Your task to perform on an android device: turn on bluetooth scan Image 0: 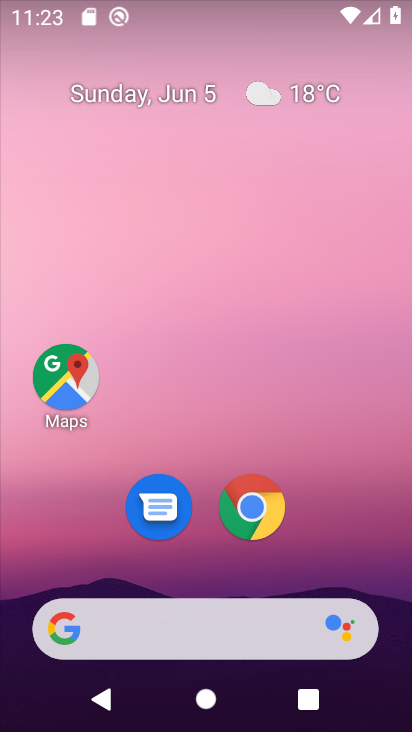
Step 0: drag from (224, 725) to (226, 198)
Your task to perform on an android device: turn on bluetooth scan Image 1: 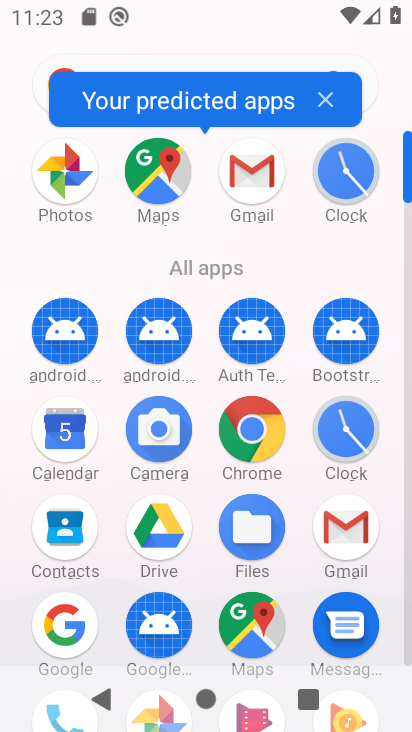
Step 1: drag from (207, 609) to (211, 153)
Your task to perform on an android device: turn on bluetooth scan Image 2: 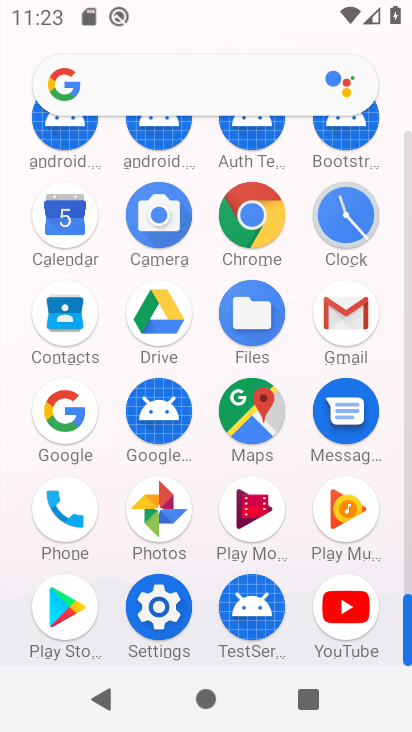
Step 2: drag from (298, 627) to (276, 176)
Your task to perform on an android device: turn on bluetooth scan Image 3: 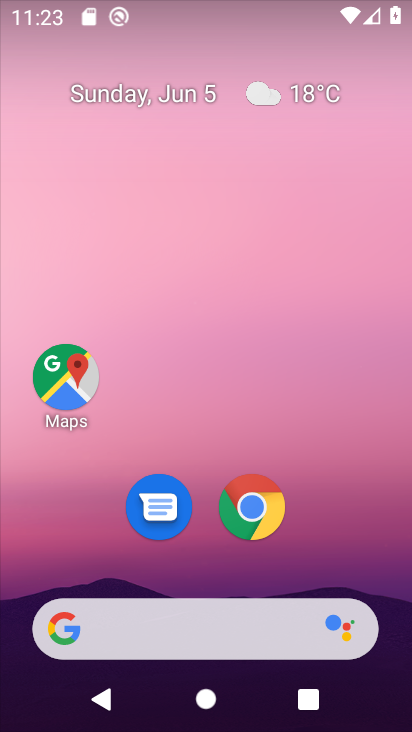
Step 3: drag from (246, 726) to (235, 63)
Your task to perform on an android device: turn on bluetooth scan Image 4: 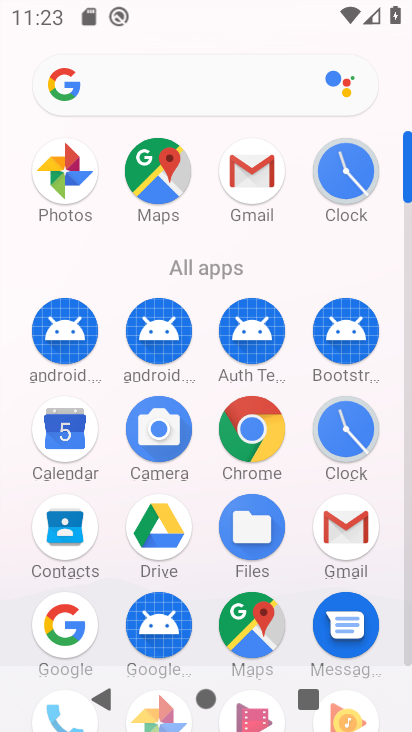
Step 4: drag from (191, 662) to (196, 246)
Your task to perform on an android device: turn on bluetooth scan Image 5: 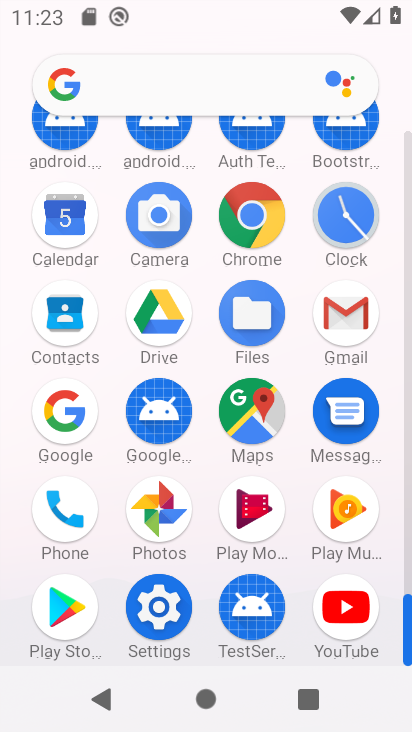
Step 5: click (158, 605)
Your task to perform on an android device: turn on bluetooth scan Image 6: 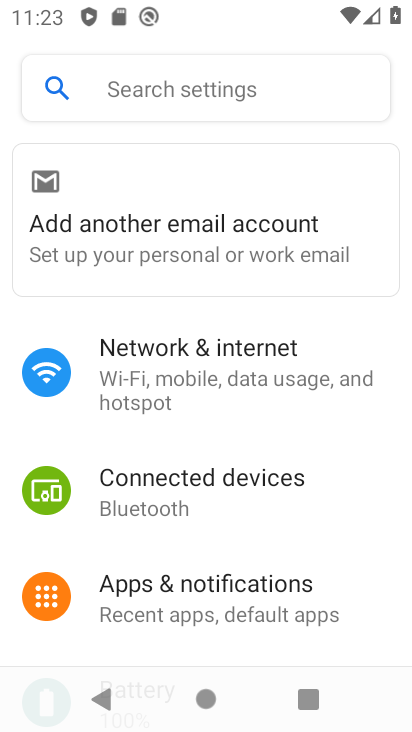
Step 6: drag from (159, 641) to (173, 220)
Your task to perform on an android device: turn on bluetooth scan Image 7: 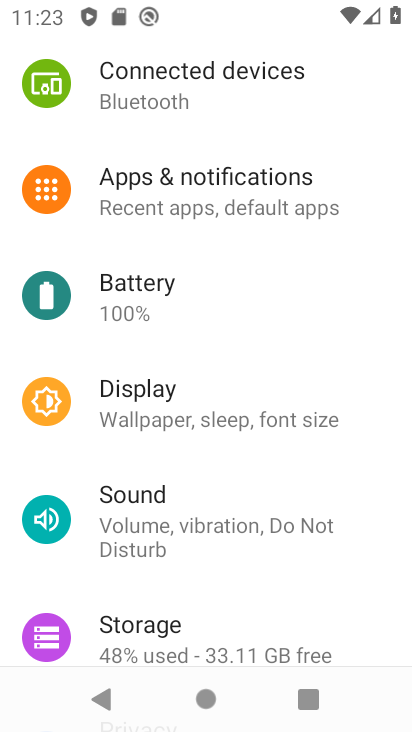
Step 7: drag from (160, 635) to (146, 261)
Your task to perform on an android device: turn on bluetooth scan Image 8: 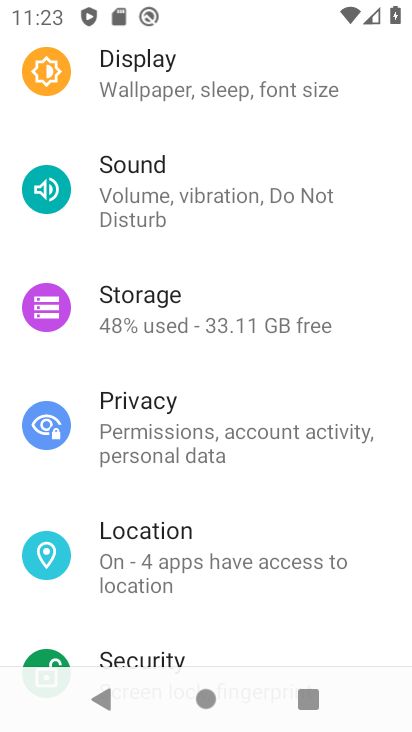
Step 8: click (130, 544)
Your task to perform on an android device: turn on bluetooth scan Image 9: 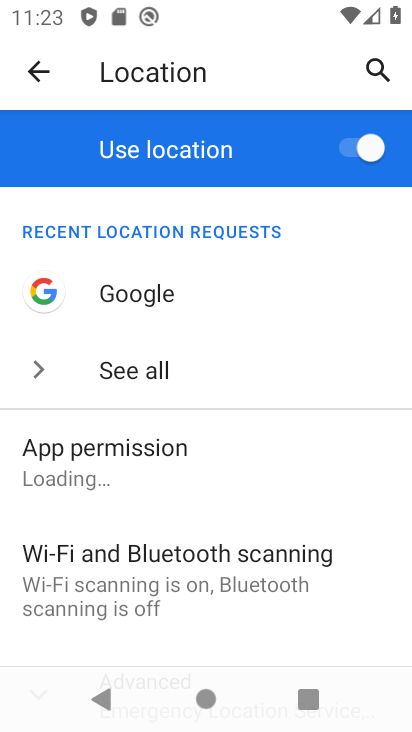
Step 9: click (137, 586)
Your task to perform on an android device: turn on bluetooth scan Image 10: 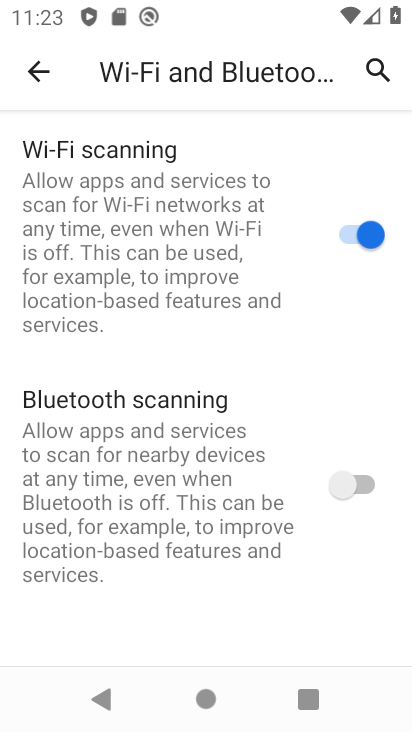
Step 10: click (361, 476)
Your task to perform on an android device: turn on bluetooth scan Image 11: 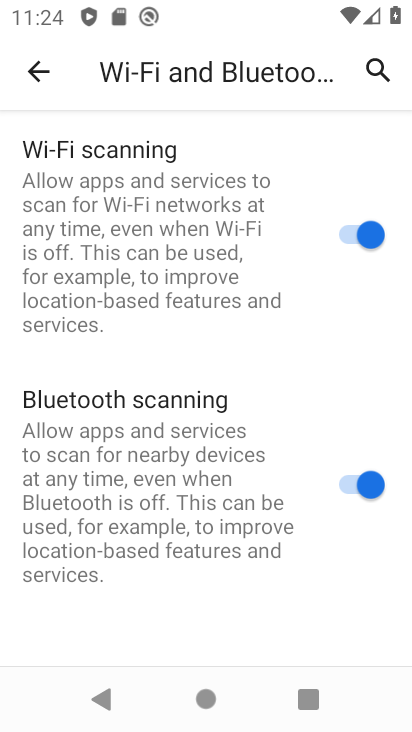
Step 11: task complete